Your task to perform on an android device: toggle location history Image 0: 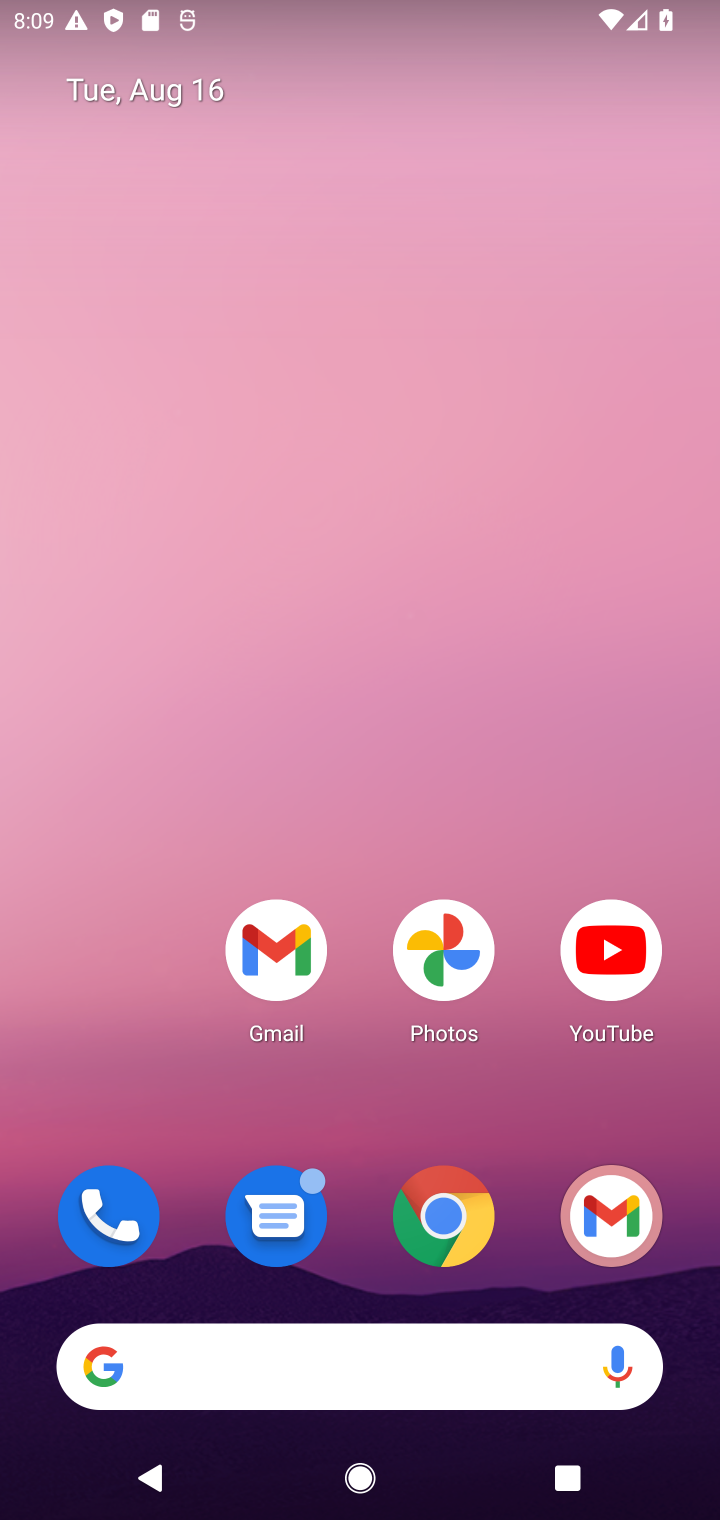
Step 0: drag from (361, 1298) to (273, 60)
Your task to perform on an android device: toggle location history Image 1: 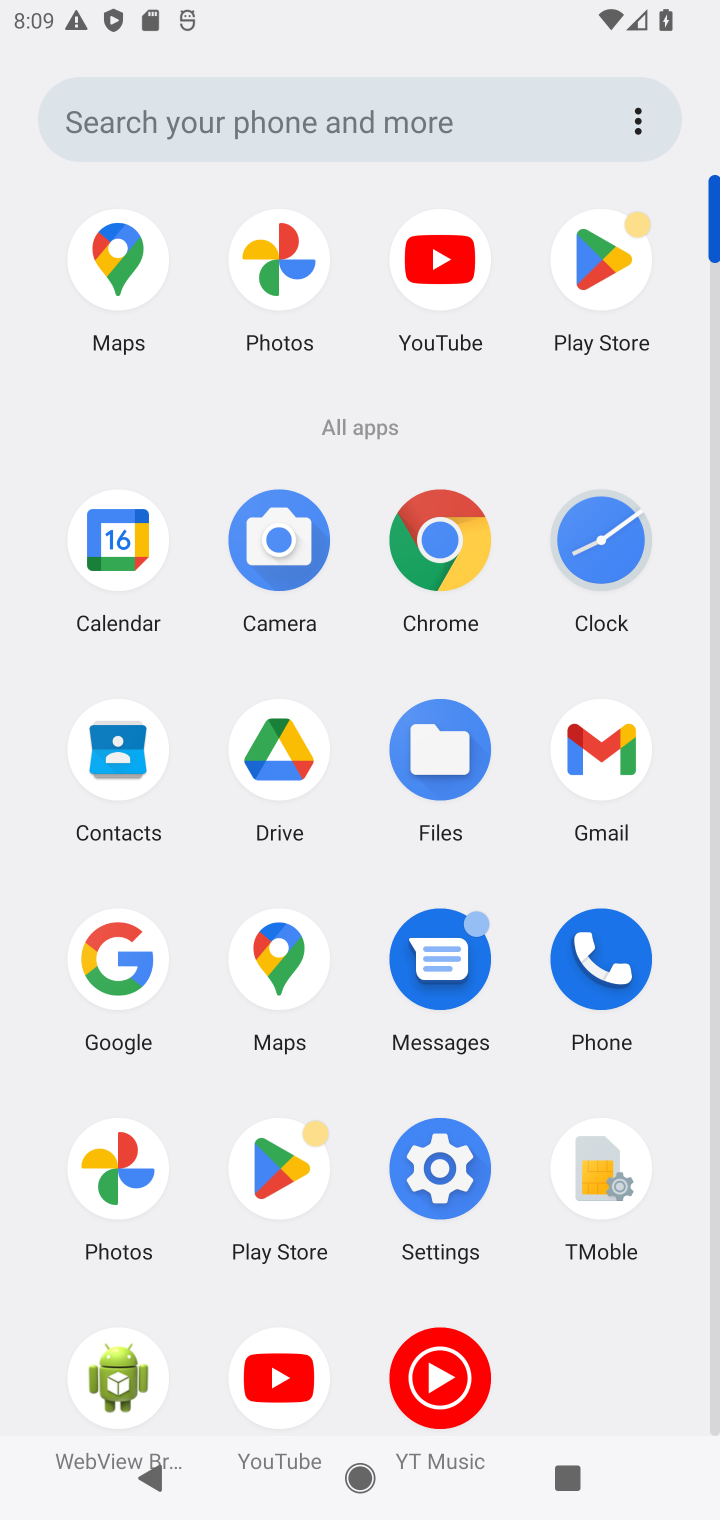
Step 1: click (433, 1163)
Your task to perform on an android device: toggle location history Image 2: 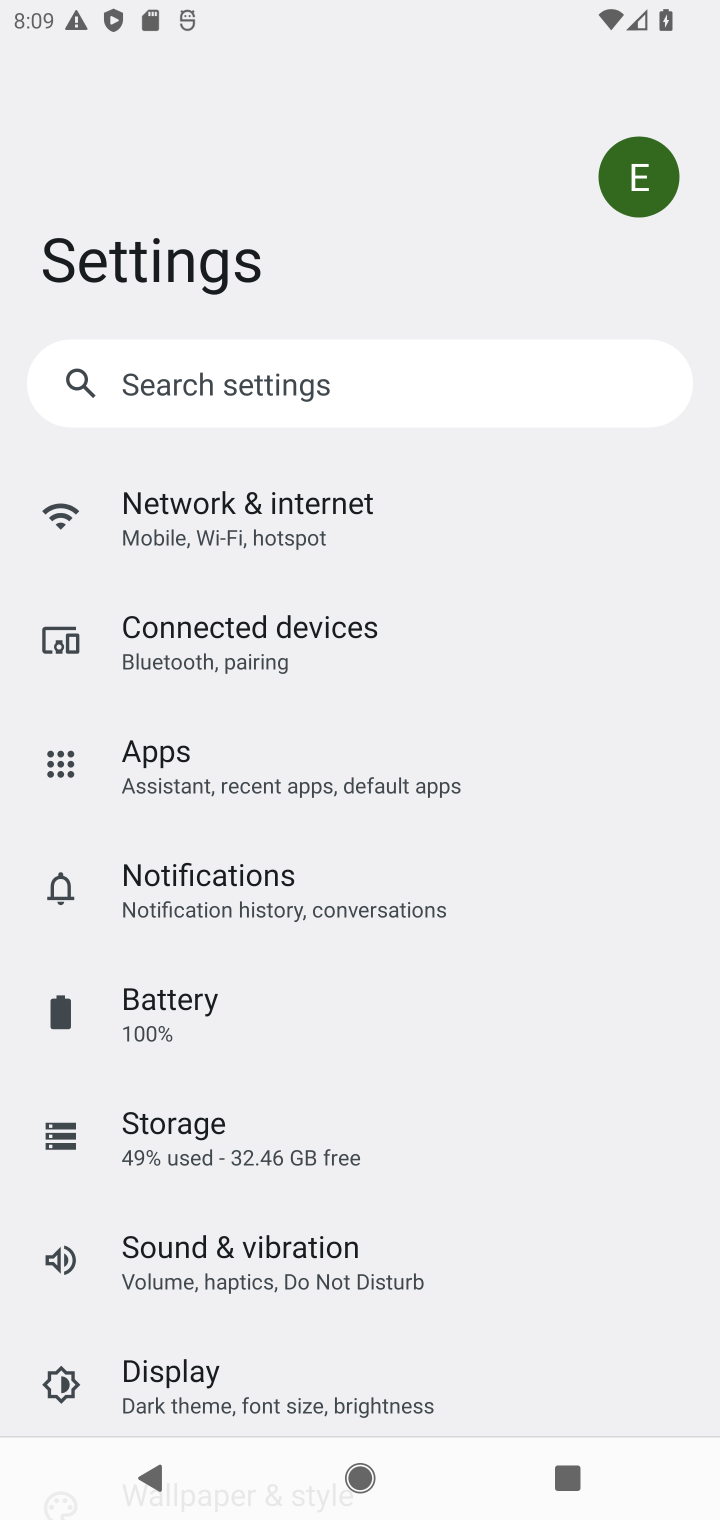
Step 2: drag from (244, 1246) to (59, 44)
Your task to perform on an android device: toggle location history Image 3: 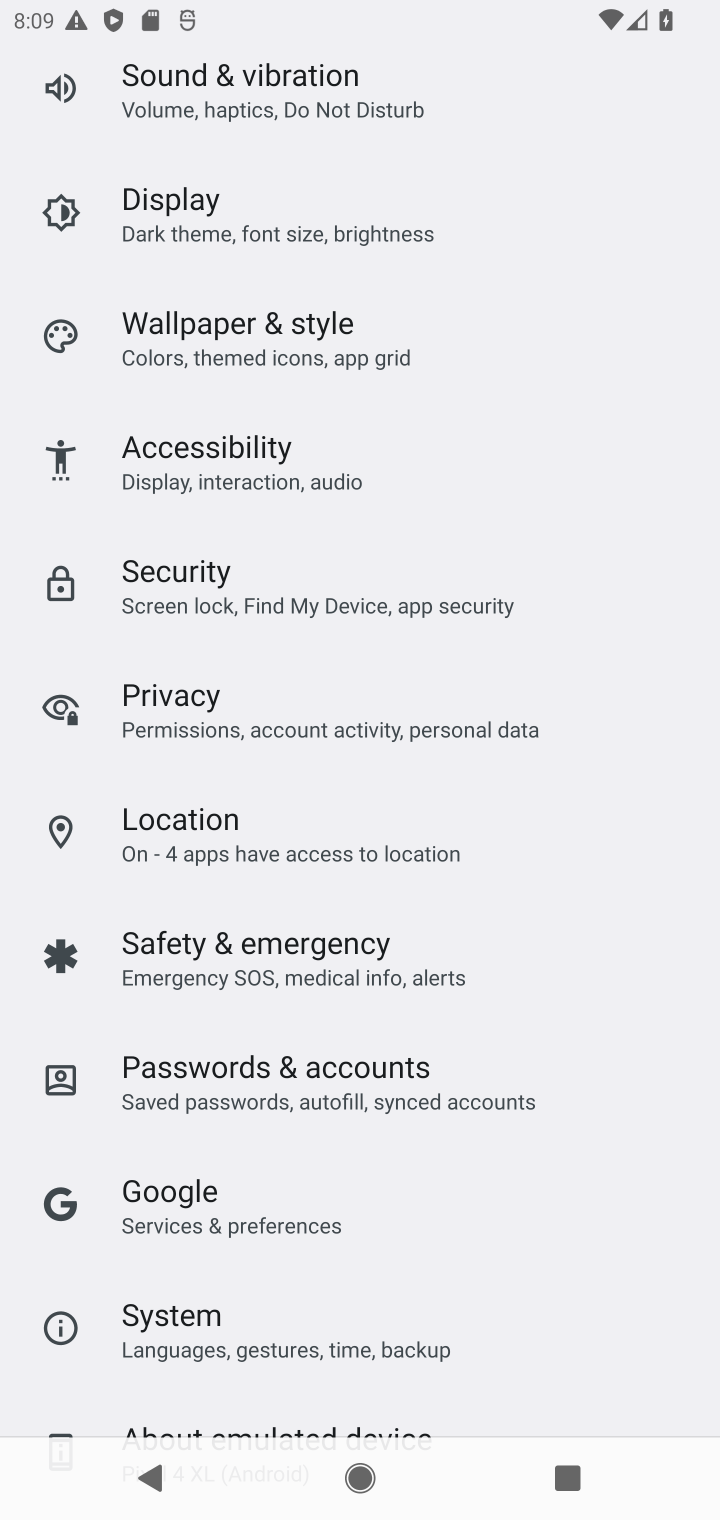
Step 3: click (264, 871)
Your task to perform on an android device: toggle location history Image 4: 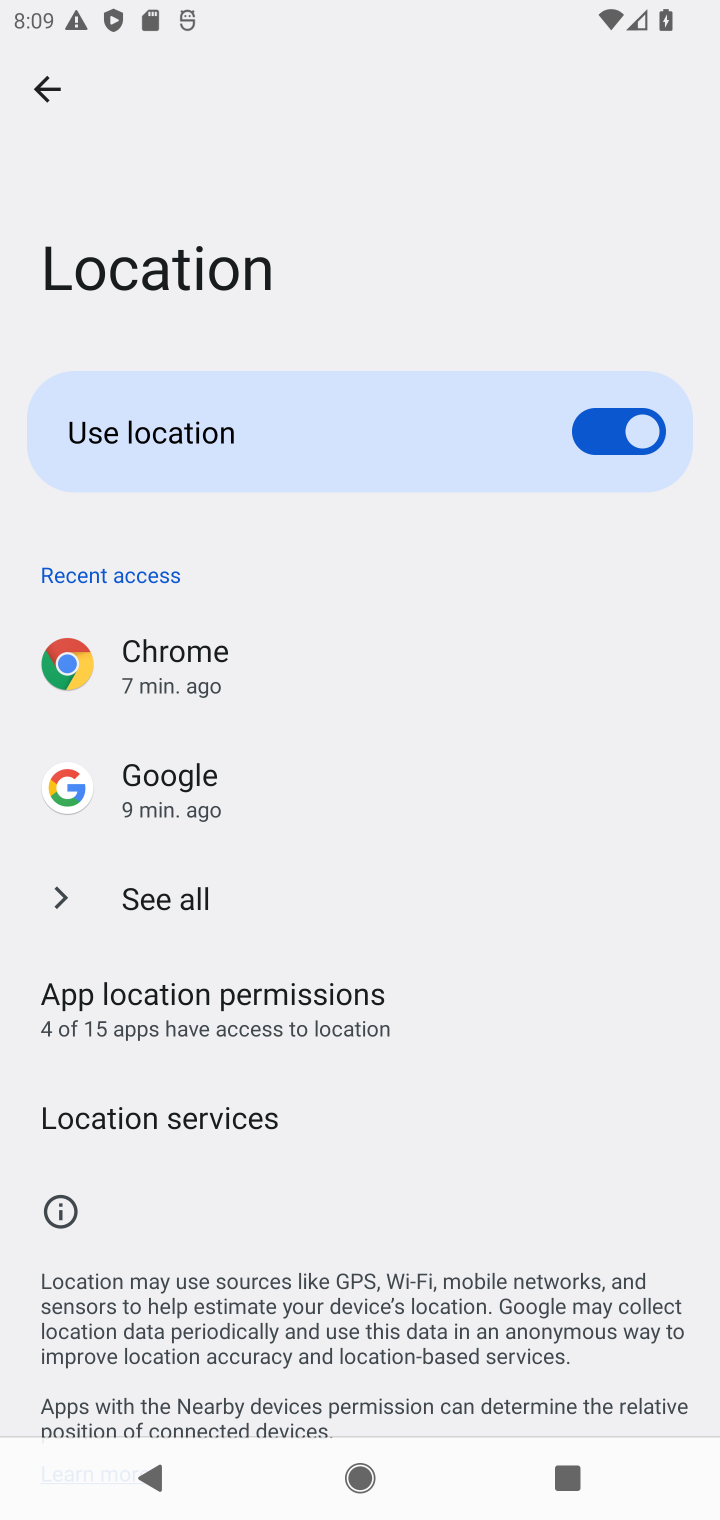
Step 4: click (200, 1116)
Your task to perform on an android device: toggle location history Image 5: 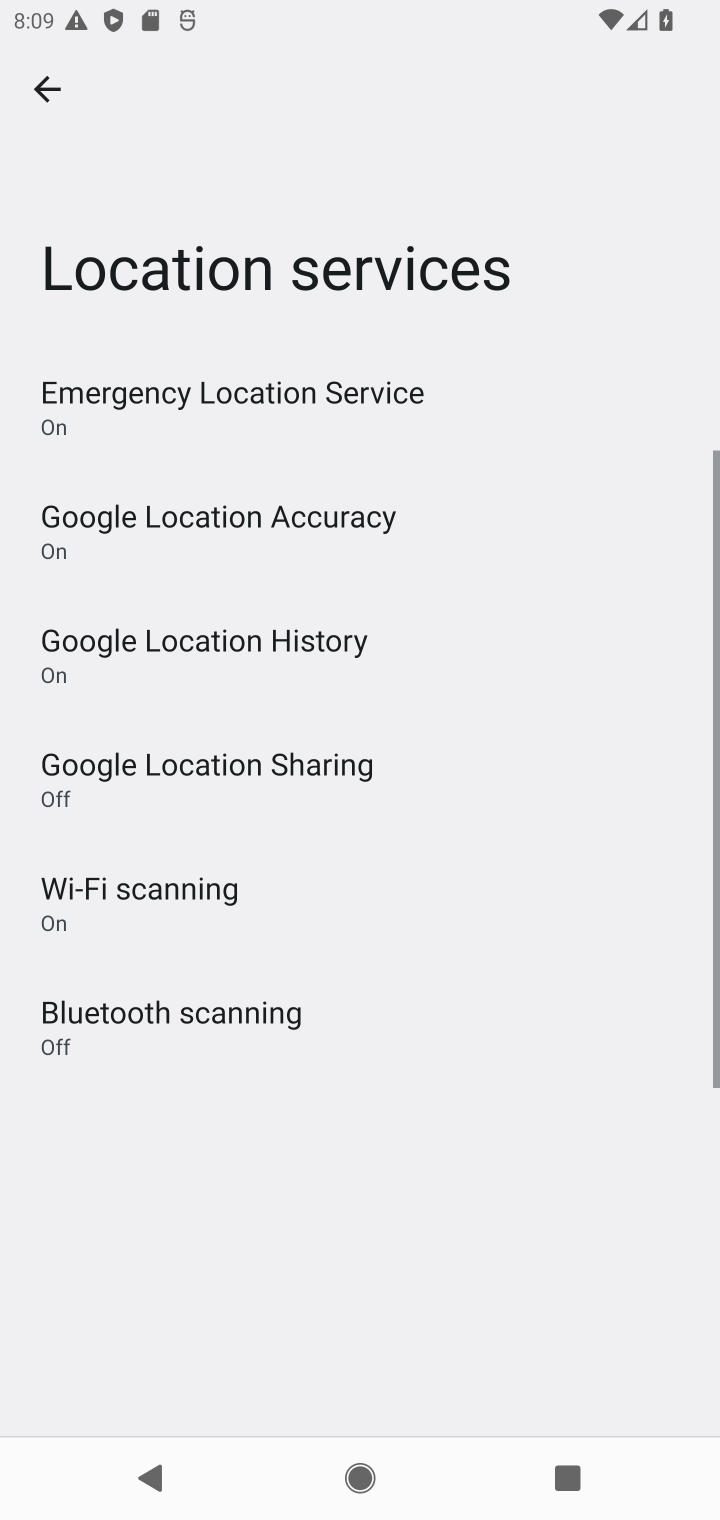
Step 5: click (249, 632)
Your task to perform on an android device: toggle location history Image 6: 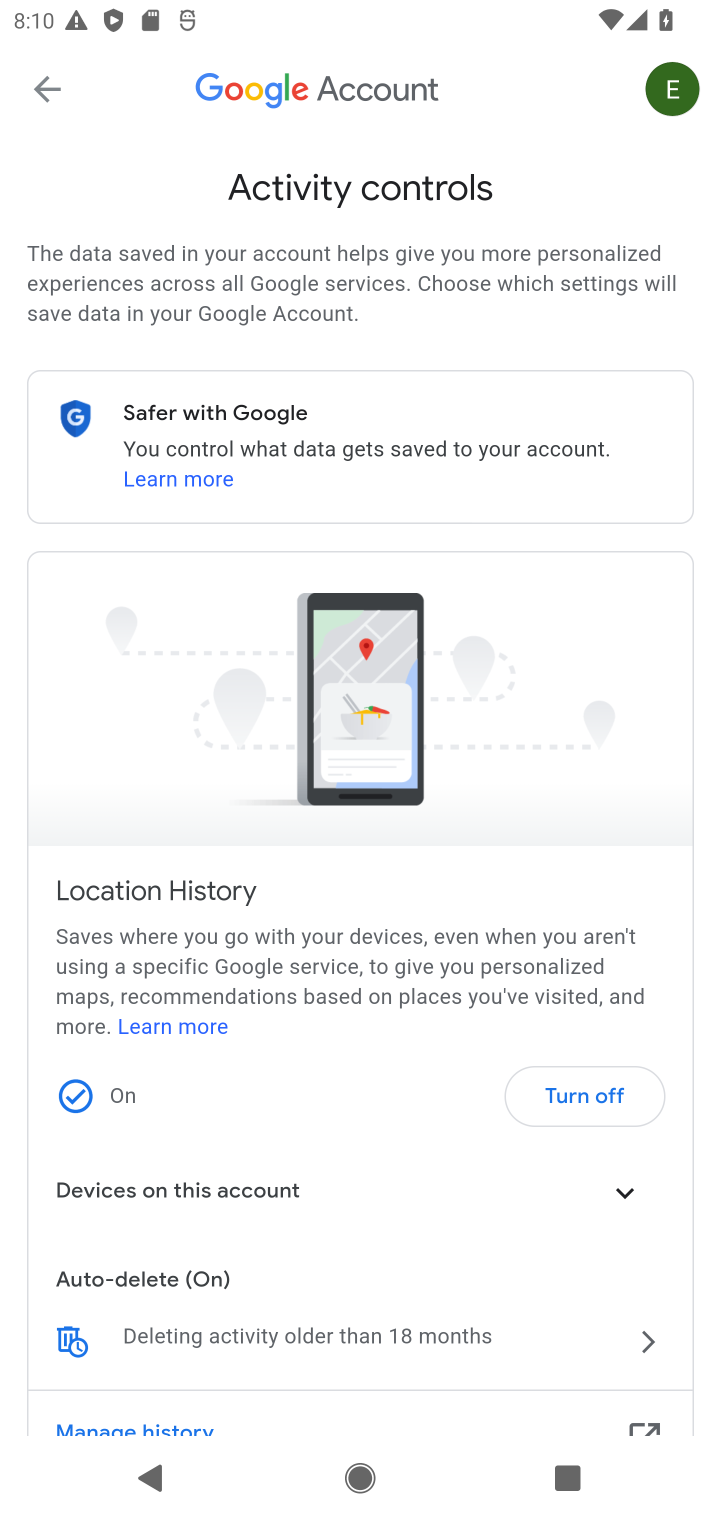
Step 6: click (557, 1115)
Your task to perform on an android device: toggle location history Image 7: 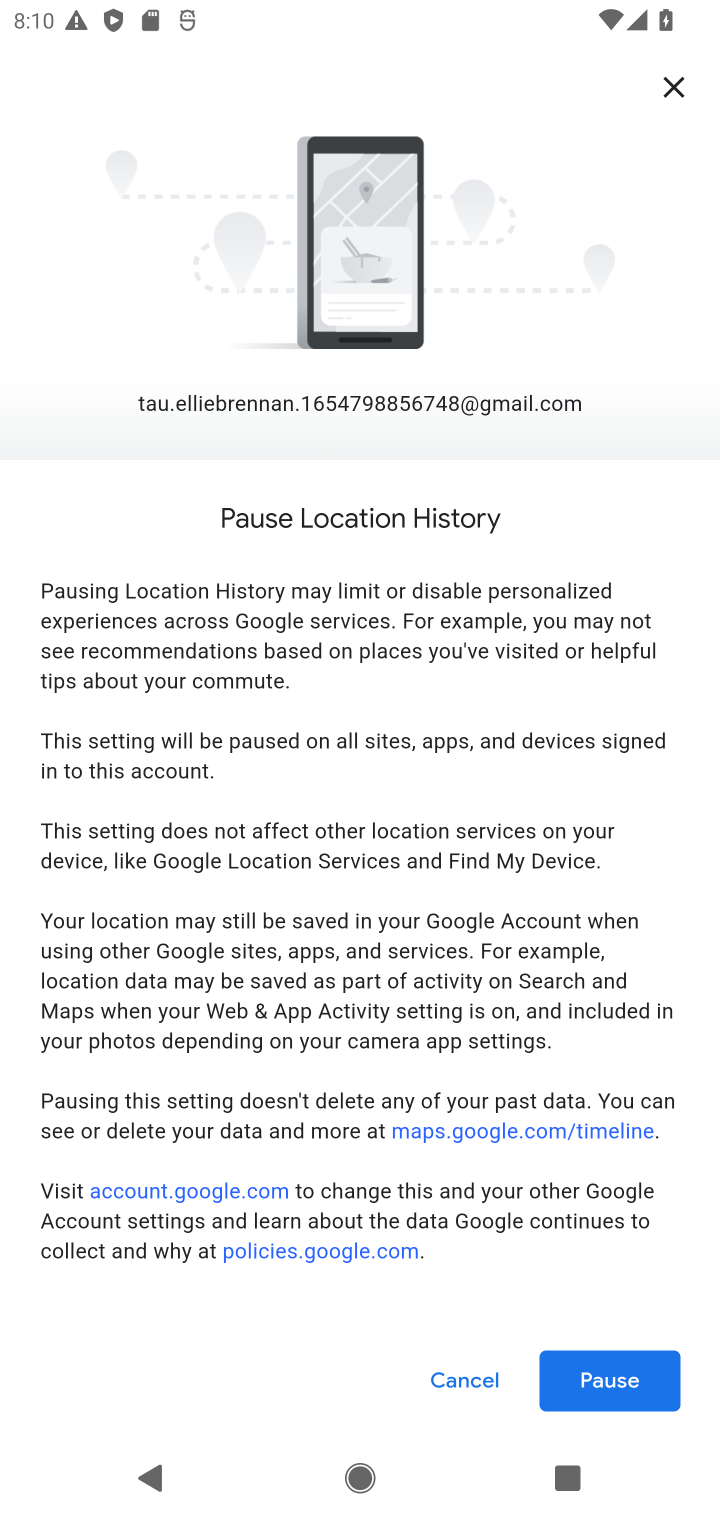
Step 7: click (575, 1354)
Your task to perform on an android device: toggle location history Image 8: 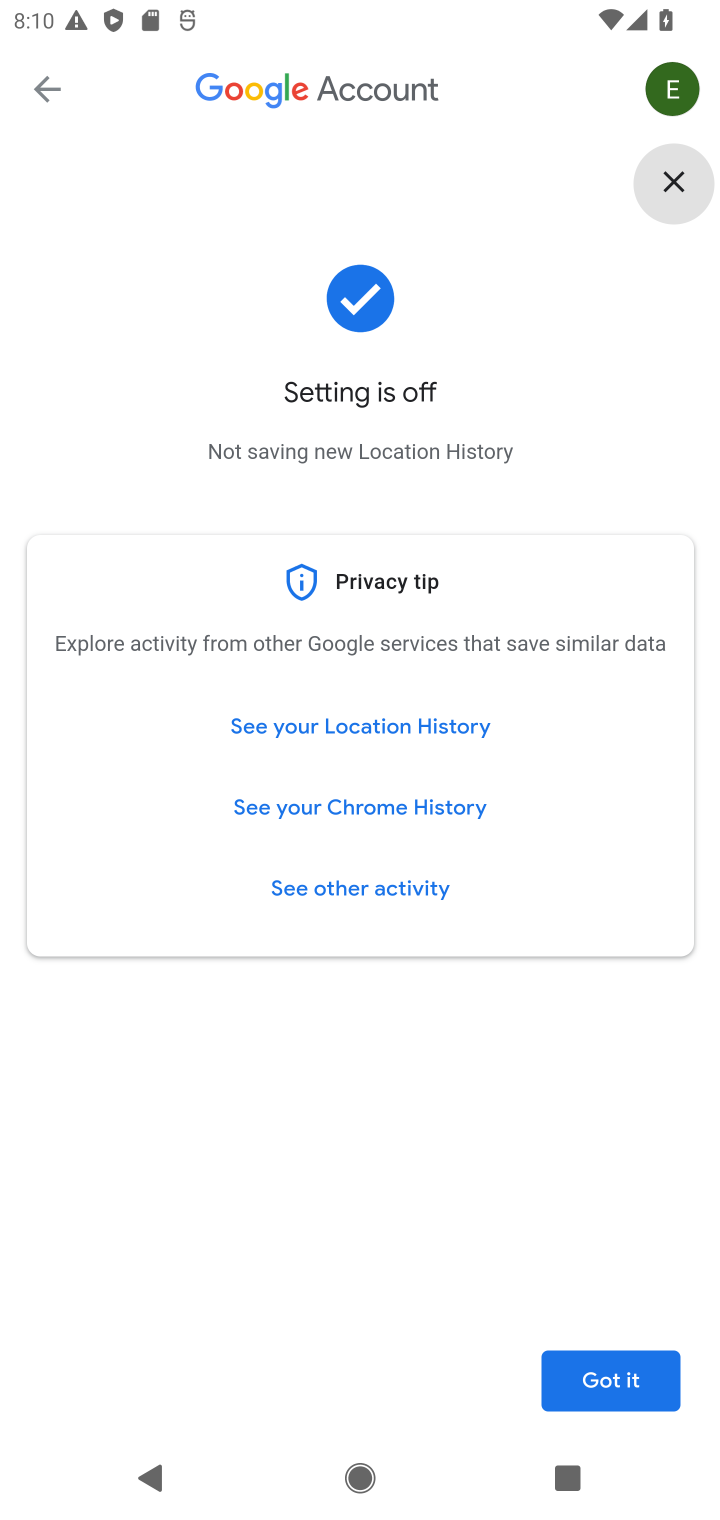
Step 8: click (633, 1387)
Your task to perform on an android device: toggle location history Image 9: 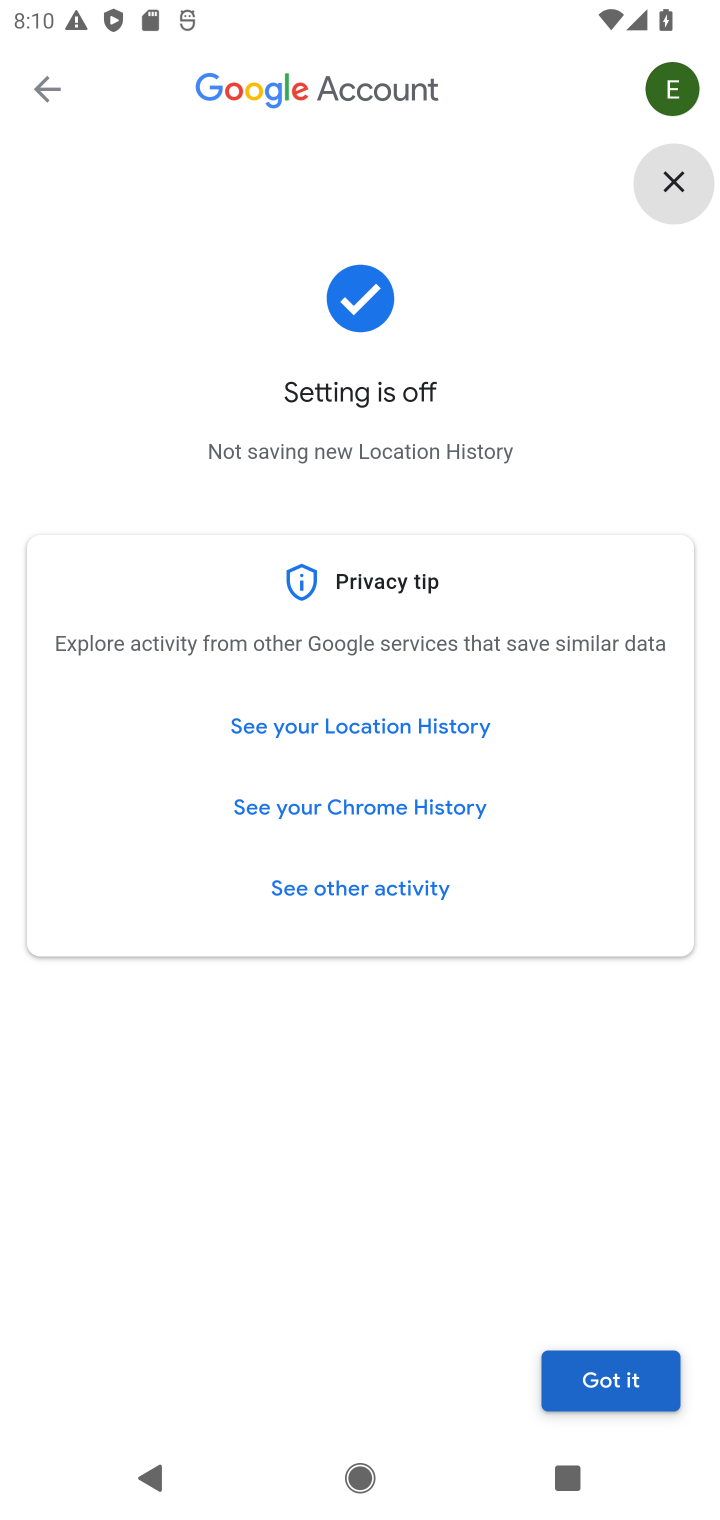
Step 9: task complete